Your task to perform on an android device: Open calendar and show me the first week of next month Image 0: 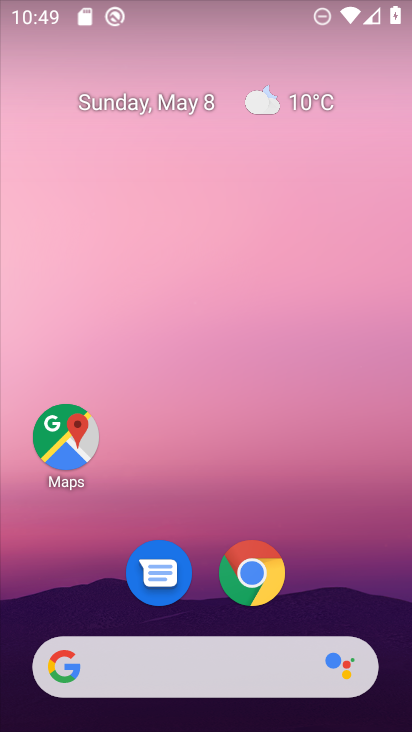
Step 0: drag from (342, 509) to (343, 91)
Your task to perform on an android device: Open calendar and show me the first week of next month Image 1: 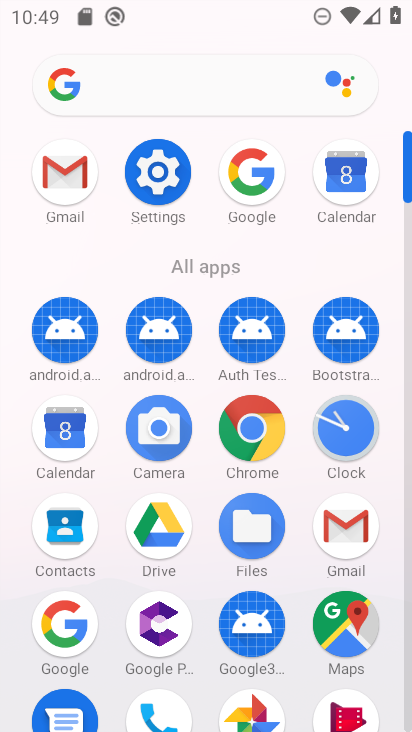
Step 1: click (82, 437)
Your task to perform on an android device: Open calendar and show me the first week of next month Image 2: 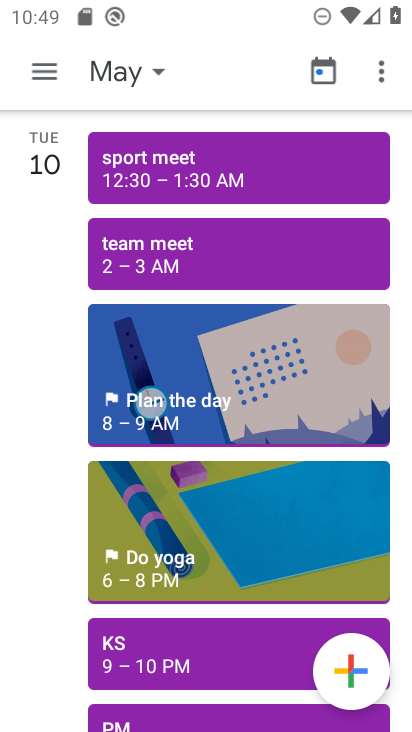
Step 2: click (139, 86)
Your task to perform on an android device: Open calendar and show me the first week of next month Image 3: 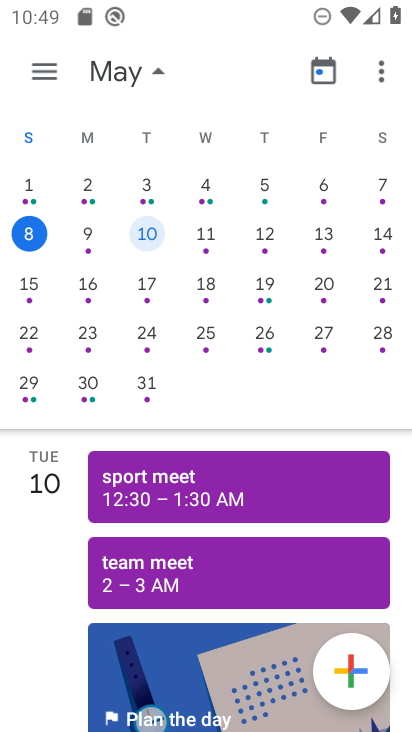
Step 3: task complete